Your task to perform on an android device: add a contact Image 0: 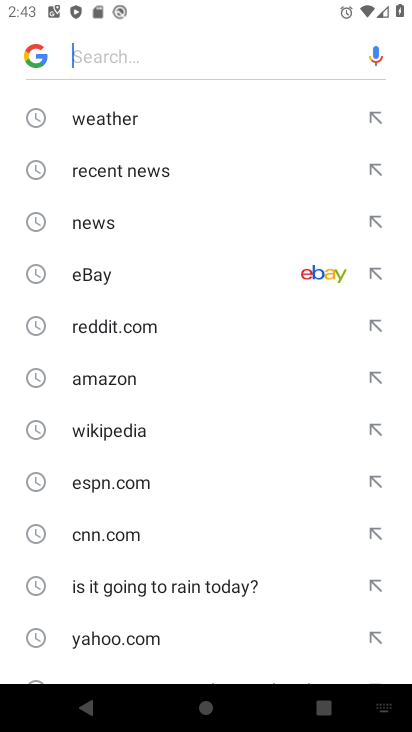
Step 0: press back button
Your task to perform on an android device: add a contact Image 1: 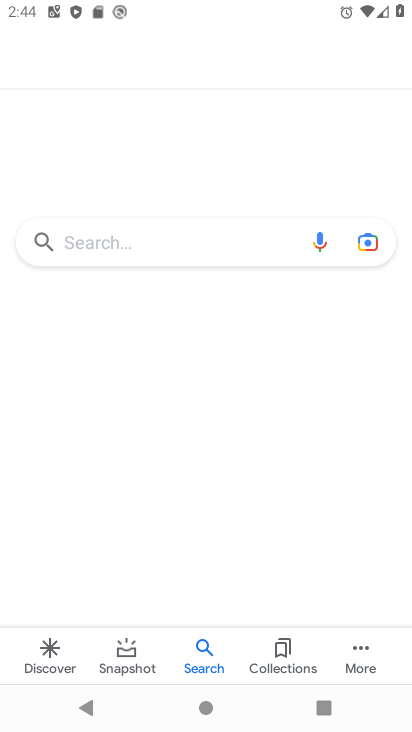
Step 1: press back button
Your task to perform on an android device: add a contact Image 2: 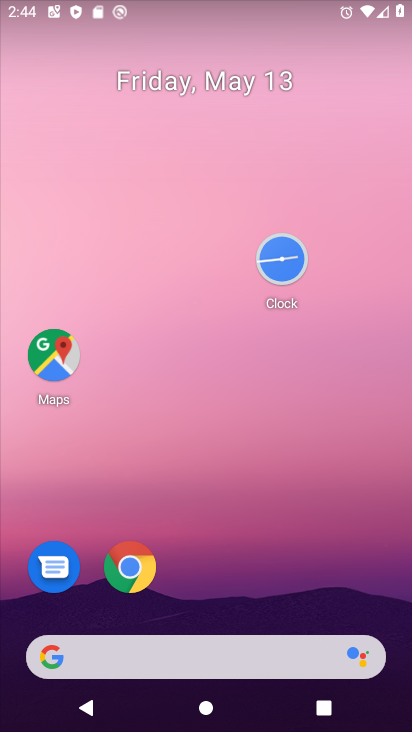
Step 2: drag from (272, 557) to (235, 445)
Your task to perform on an android device: add a contact Image 3: 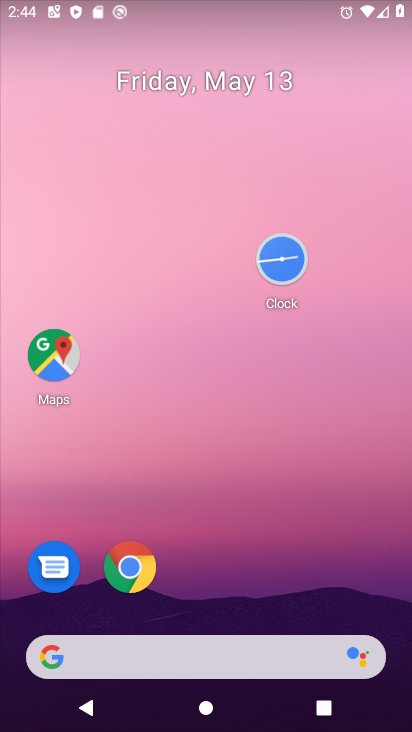
Step 3: drag from (201, 570) to (169, 250)
Your task to perform on an android device: add a contact Image 4: 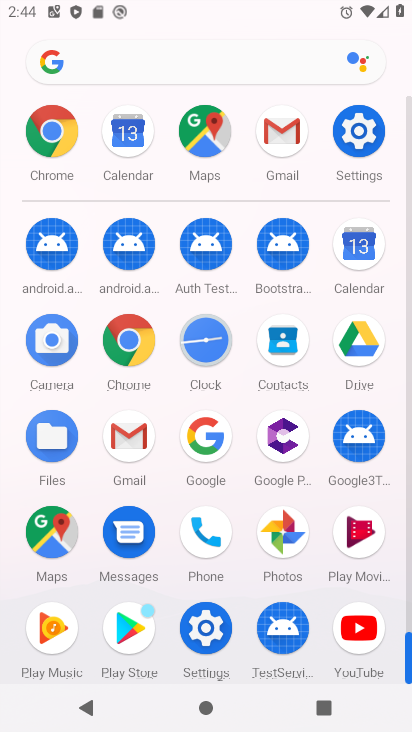
Step 4: click (280, 348)
Your task to perform on an android device: add a contact Image 5: 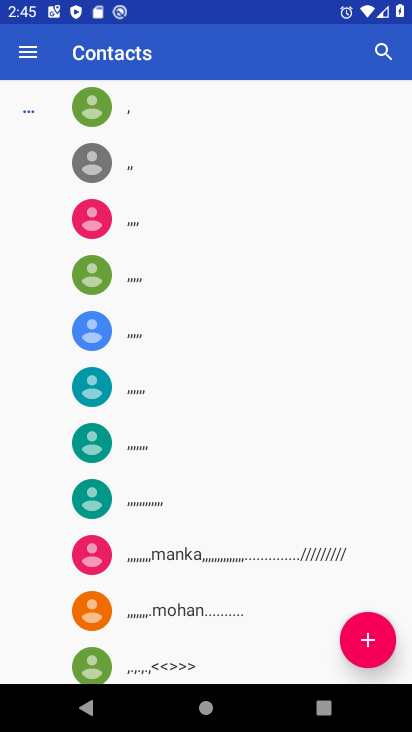
Step 5: click (366, 635)
Your task to perform on an android device: add a contact Image 6: 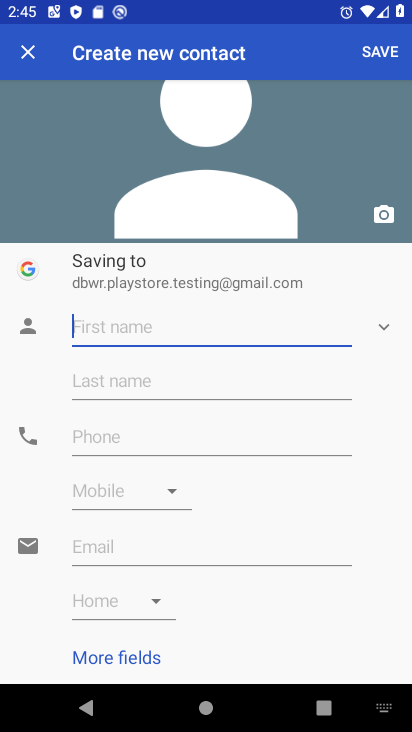
Step 6: type "scsd"
Your task to perform on an android device: add a contact Image 7: 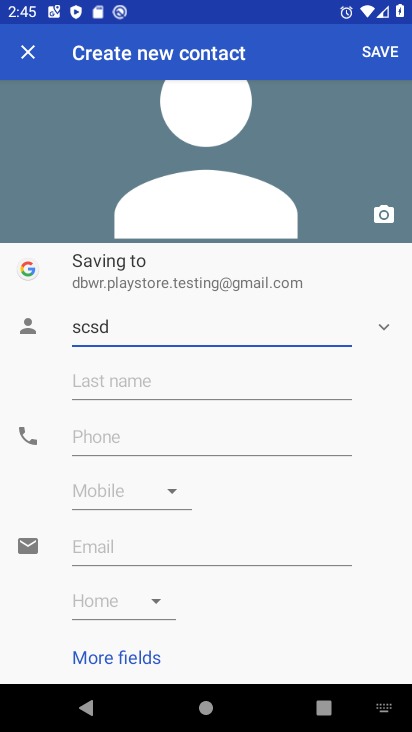
Step 7: click (90, 365)
Your task to perform on an android device: add a contact Image 8: 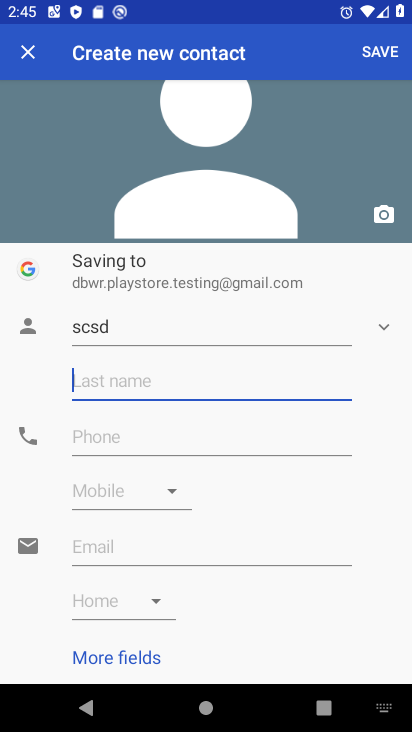
Step 8: type "scdscsd"
Your task to perform on an android device: add a contact Image 9: 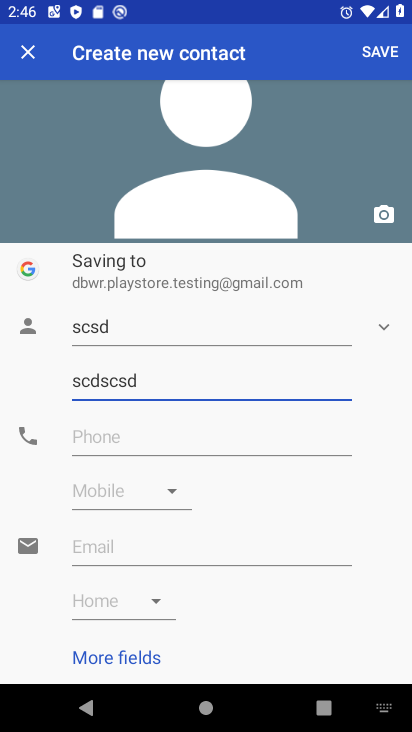
Step 9: click (219, 446)
Your task to perform on an android device: add a contact Image 10: 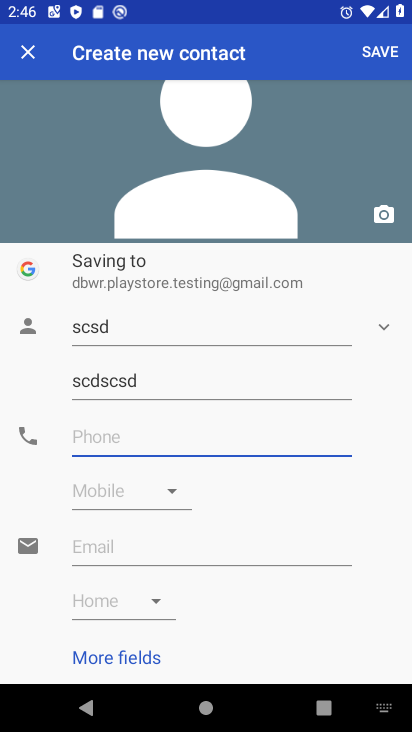
Step 10: type "323e32323"
Your task to perform on an android device: add a contact Image 11: 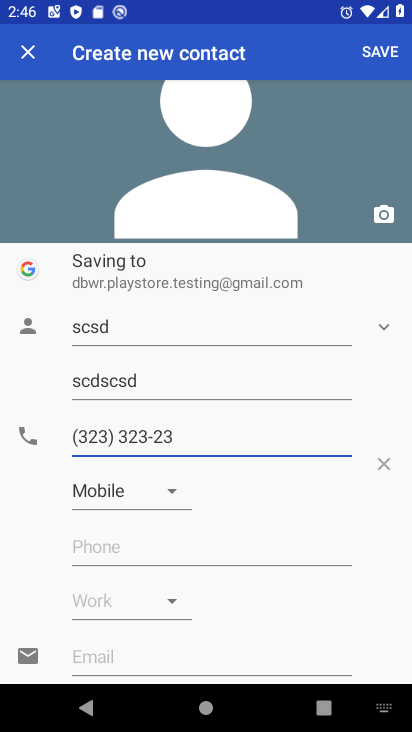
Step 11: click (376, 63)
Your task to perform on an android device: add a contact Image 12: 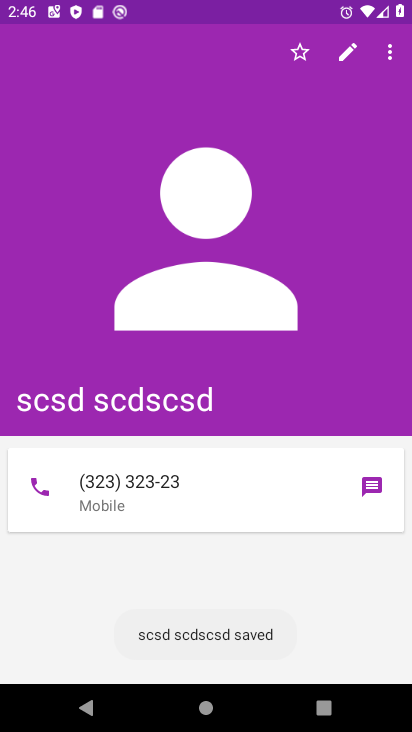
Step 12: task complete